Your task to perform on an android device: change the upload size in google photos Image 0: 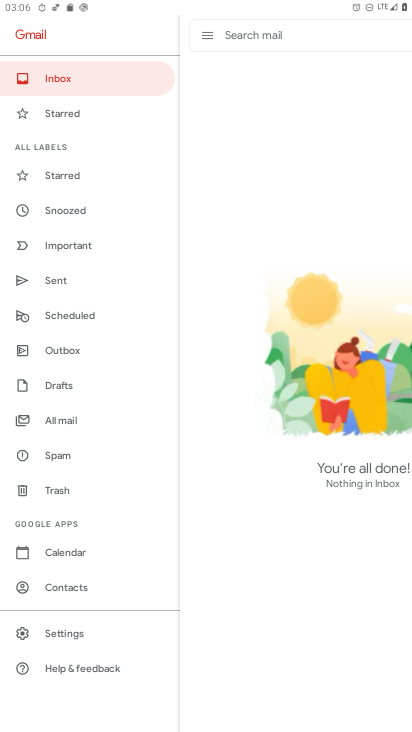
Step 0: press home button
Your task to perform on an android device: change the upload size in google photos Image 1: 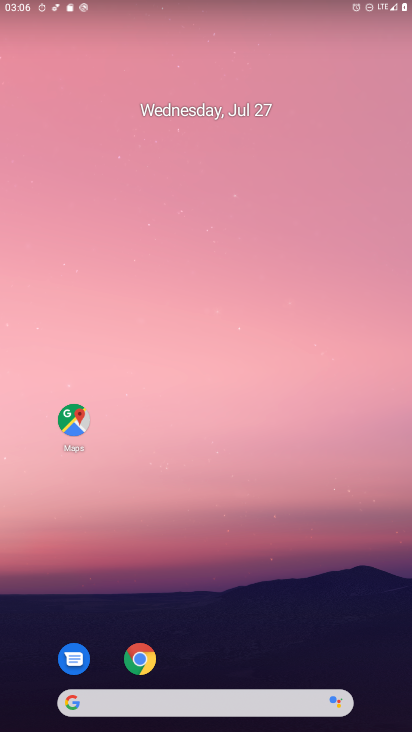
Step 1: drag from (296, 578) to (246, 66)
Your task to perform on an android device: change the upload size in google photos Image 2: 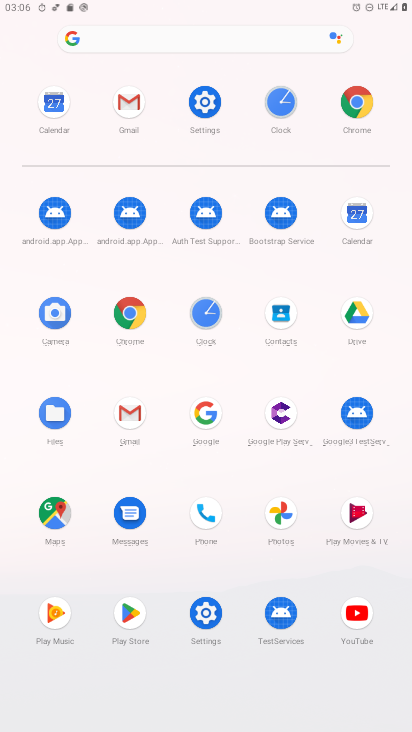
Step 2: click (282, 514)
Your task to perform on an android device: change the upload size in google photos Image 3: 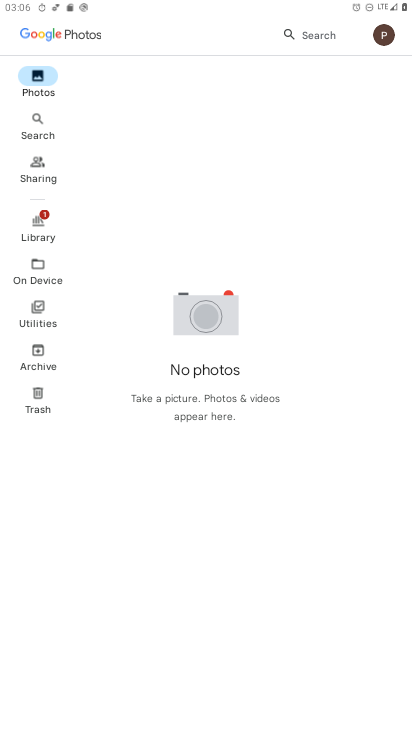
Step 3: click (387, 28)
Your task to perform on an android device: change the upload size in google photos Image 4: 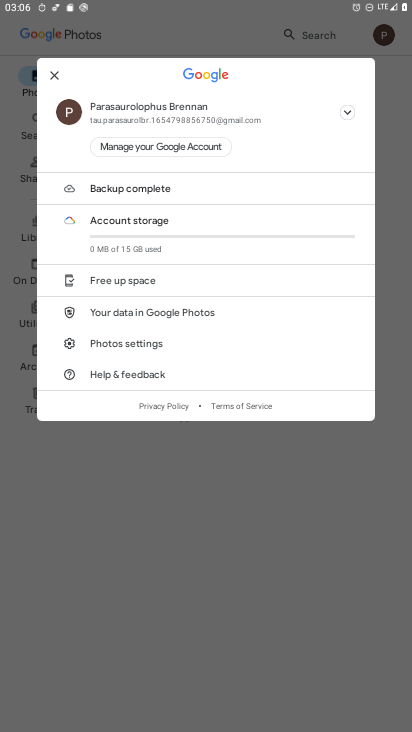
Step 4: click (122, 338)
Your task to perform on an android device: change the upload size in google photos Image 5: 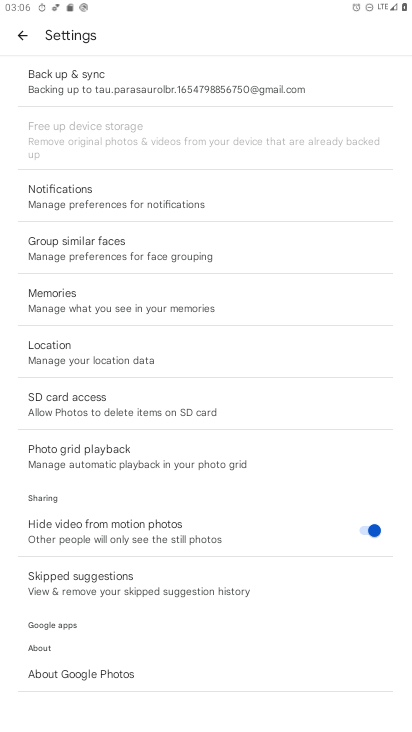
Step 5: click (129, 78)
Your task to perform on an android device: change the upload size in google photos Image 6: 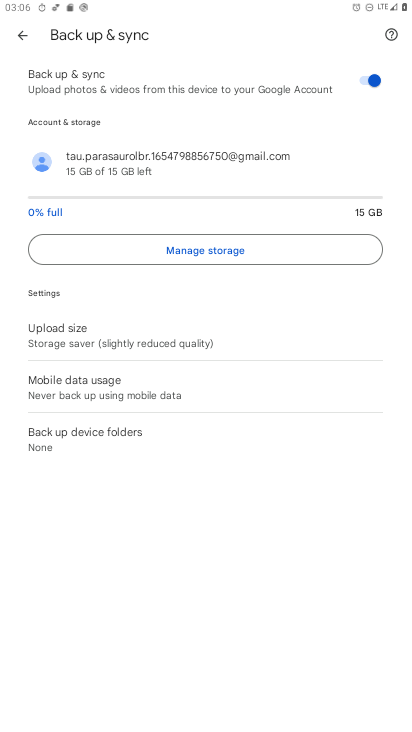
Step 6: click (89, 342)
Your task to perform on an android device: change the upload size in google photos Image 7: 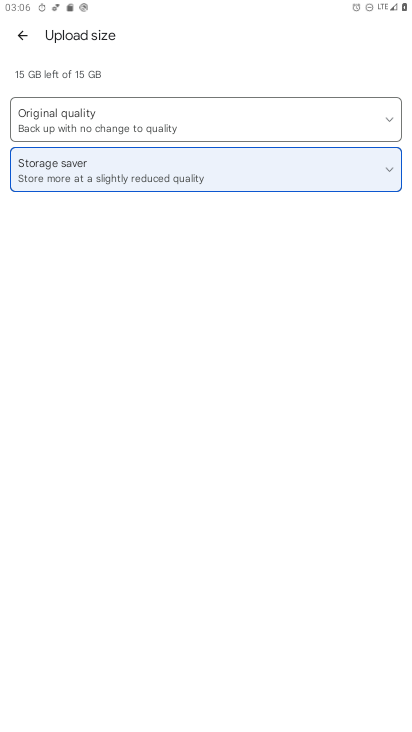
Step 7: click (140, 118)
Your task to perform on an android device: change the upload size in google photos Image 8: 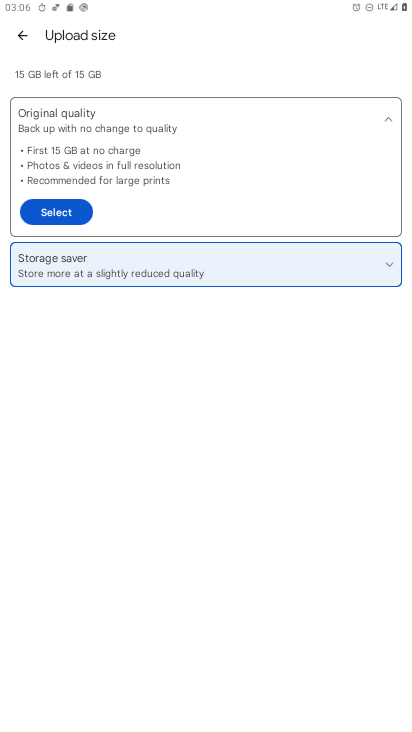
Step 8: click (55, 221)
Your task to perform on an android device: change the upload size in google photos Image 9: 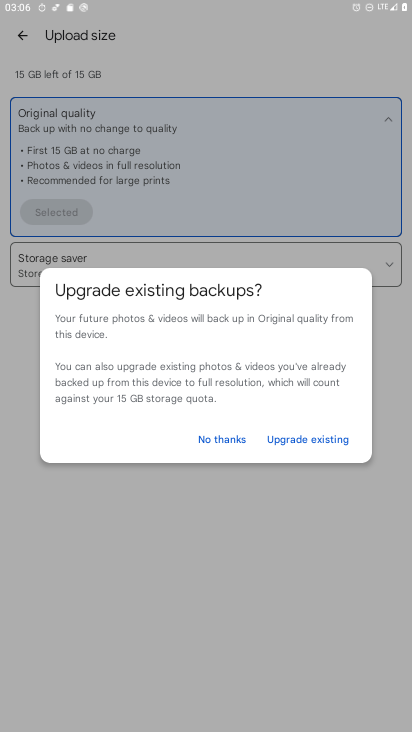
Step 9: click (215, 434)
Your task to perform on an android device: change the upload size in google photos Image 10: 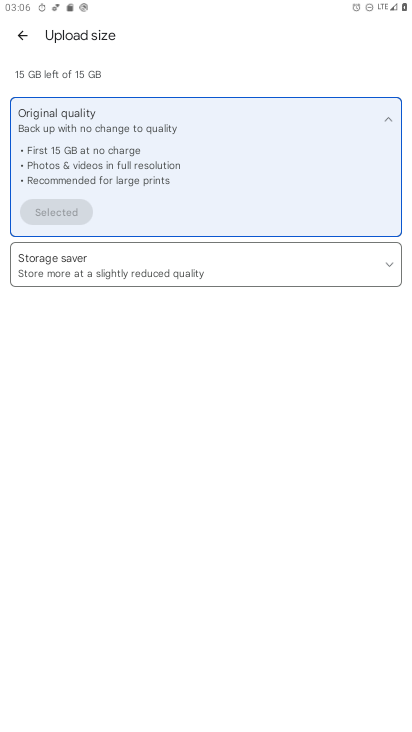
Step 10: task complete